Your task to perform on an android device: Play the last video I watched on Youtube Image 0: 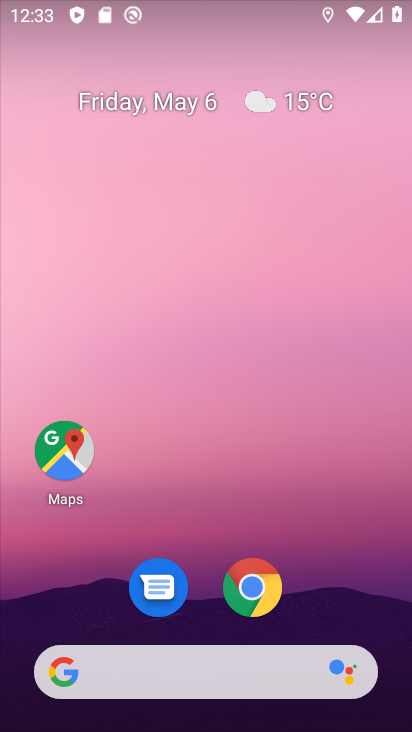
Step 0: drag from (340, 620) to (323, 81)
Your task to perform on an android device: Play the last video I watched on Youtube Image 1: 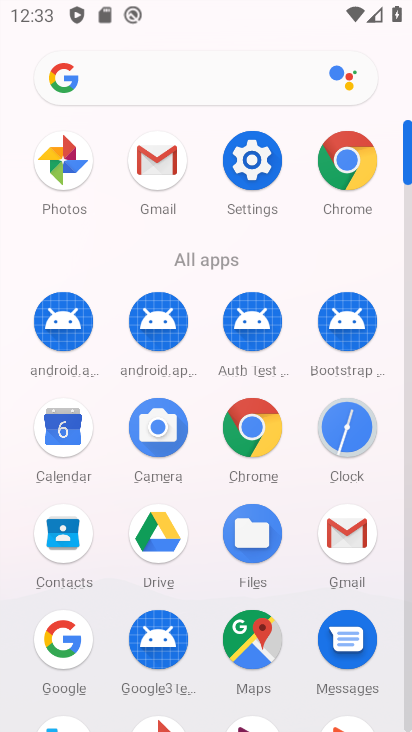
Step 1: drag from (219, 603) to (255, 271)
Your task to perform on an android device: Play the last video I watched on Youtube Image 2: 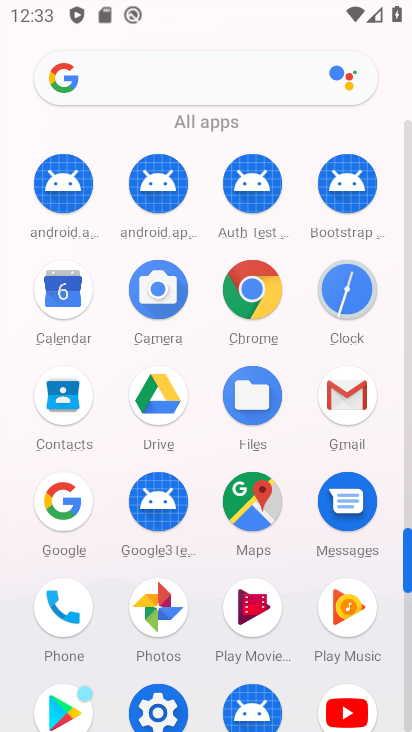
Step 2: drag from (214, 689) to (191, 199)
Your task to perform on an android device: Play the last video I watched on Youtube Image 3: 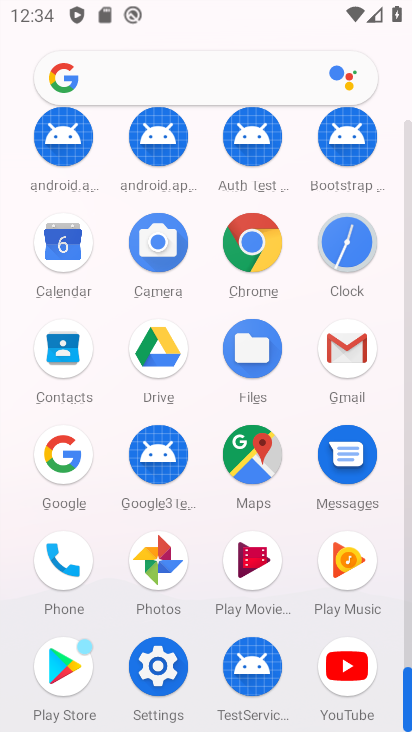
Step 3: click (349, 671)
Your task to perform on an android device: Play the last video I watched on Youtube Image 4: 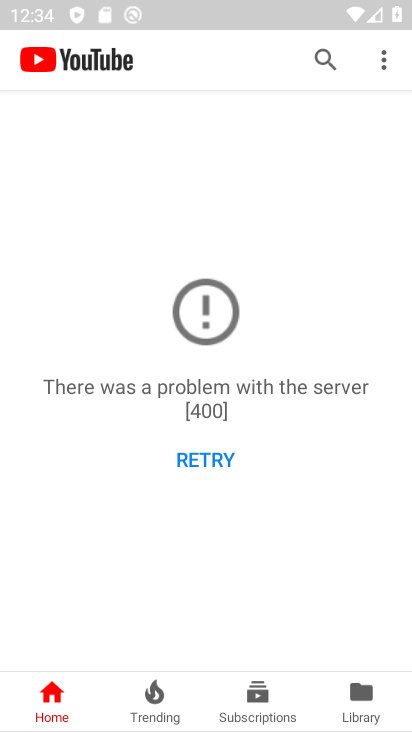
Step 4: click (355, 697)
Your task to perform on an android device: Play the last video I watched on Youtube Image 5: 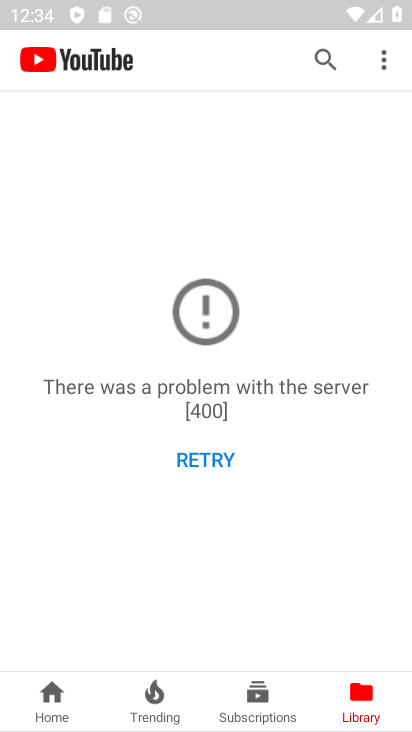
Step 5: task complete